Your task to perform on an android device: Do I have any events tomorrow? Image 0: 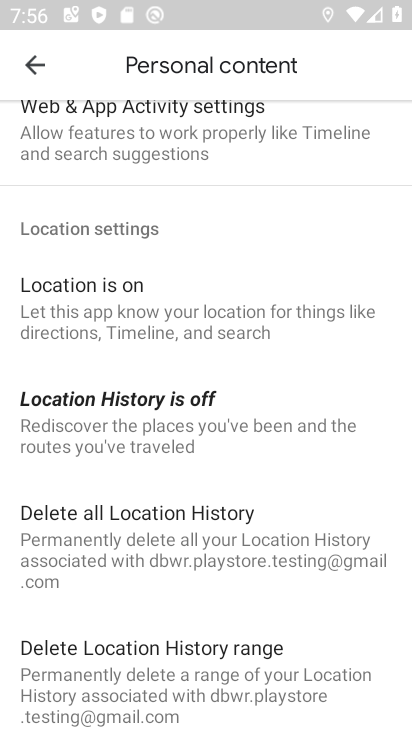
Step 0: press back button
Your task to perform on an android device: Do I have any events tomorrow? Image 1: 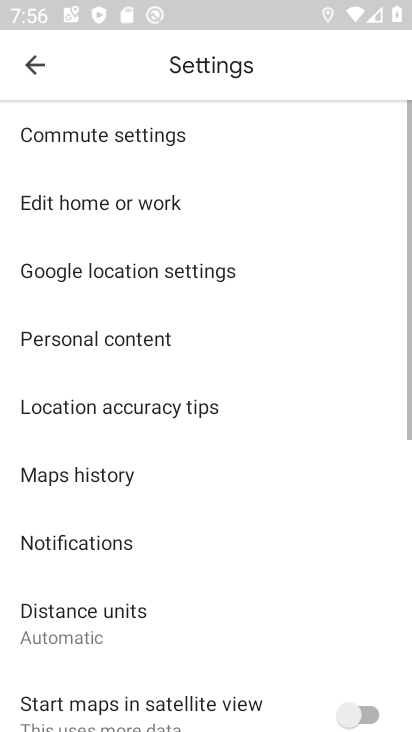
Step 1: press back button
Your task to perform on an android device: Do I have any events tomorrow? Image 2: 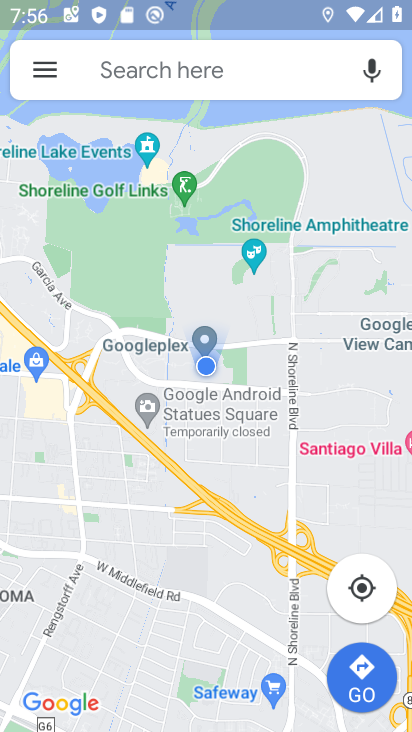
Step 2: press back button
Your task to perform on an android device: Do I have any events tomorrow? Image 3: 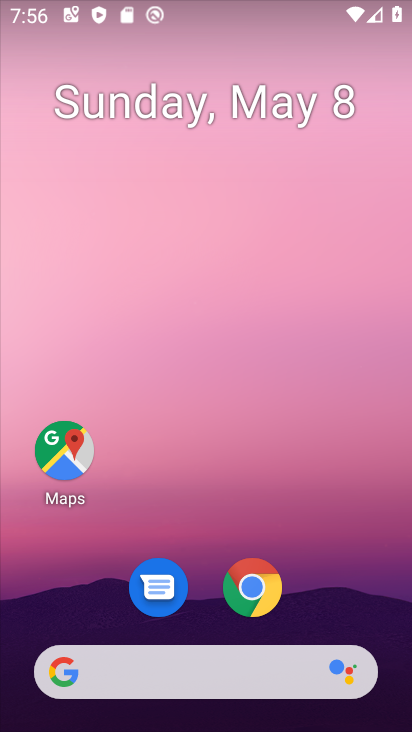
Step 3: drag from (206, 514) to (219, 44)
Your task to perform on an android device: Do I have any events tomorrow? Image 4: 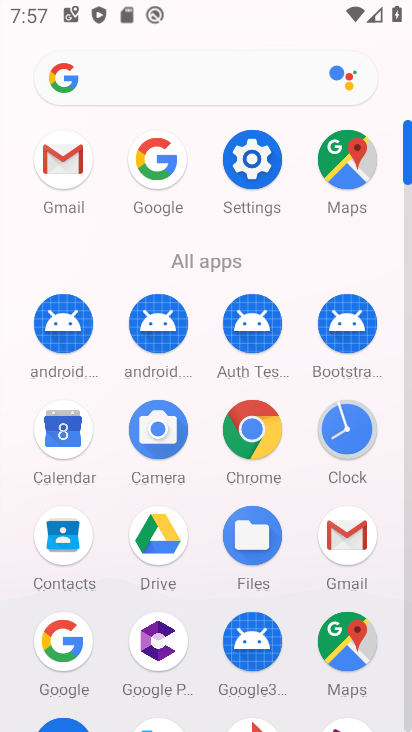
Step 4: drag from (111, 543) to (127, 449)
Your task to perform on an android device: Do I have any events tomorrow? Image 5: 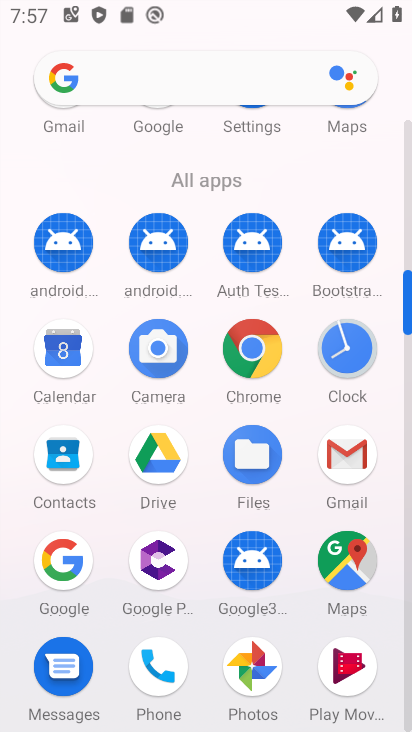
Step 5: click (64, 351)
Your task to perform on an android device: Do I have any events tomorrow? Image 6: 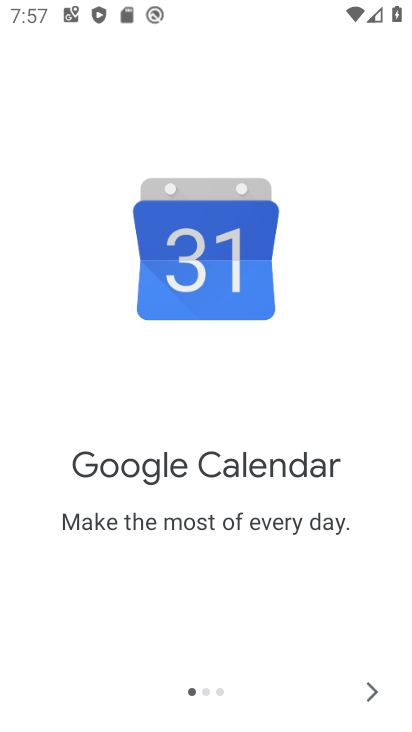
Step 6: click (373, 691)
Your task to perform on an android device: Do I have any events tomorrow? Image 7: 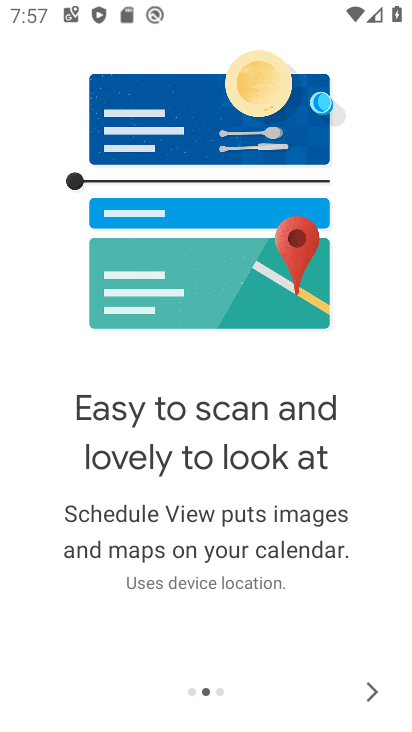
Step 7: click (373, 691)
Your task to perform on an android device: Do I have any events tomorrow? Image 8: 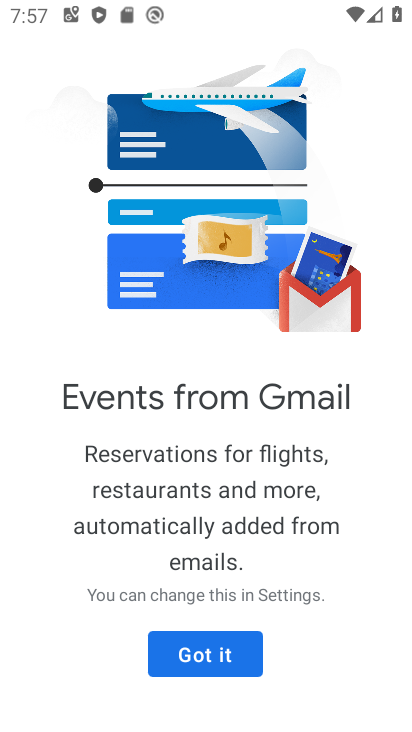
Step 8: click (212, 652)
Your task to perform on an android device: Do I have any events tomorrow? Image 9: 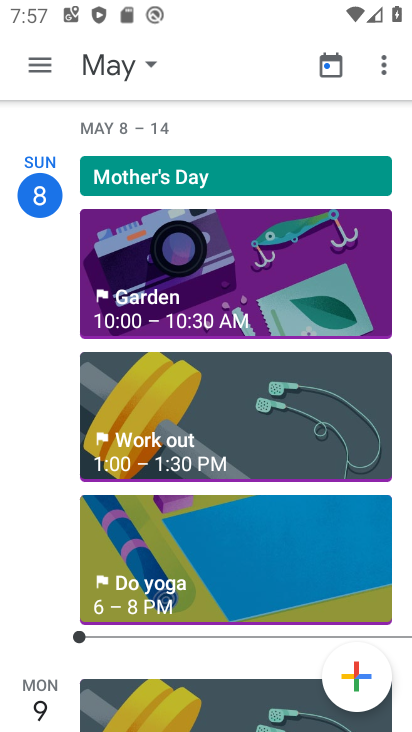
Step 9: click (153, 62)
Your task to perform on an android device: Do I have any events tomorrow? Image 10: 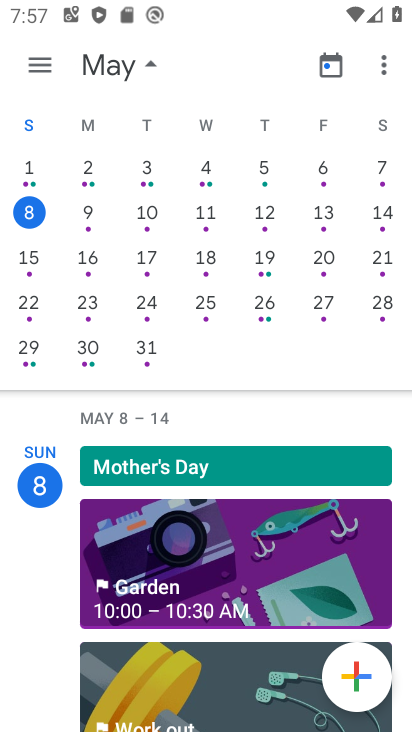
Step 10: click (93, 211)
Your task to perform on an android device: Do I have any events tomorrow? Image 11: 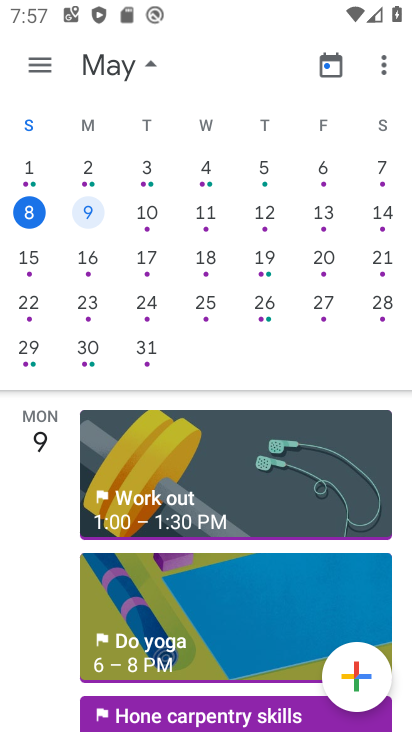
Step 11: drag from (168, 474) to (188, 344)
Your task to perform on an android device: Do I have any events tomorrow? Image 12: 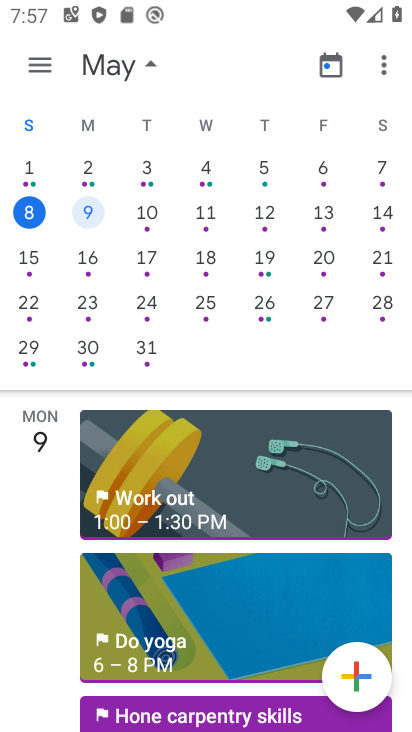
Step 12: click (190, 712)
Your task to perform on an android device: Do I have any events tomorrow? Image 13: 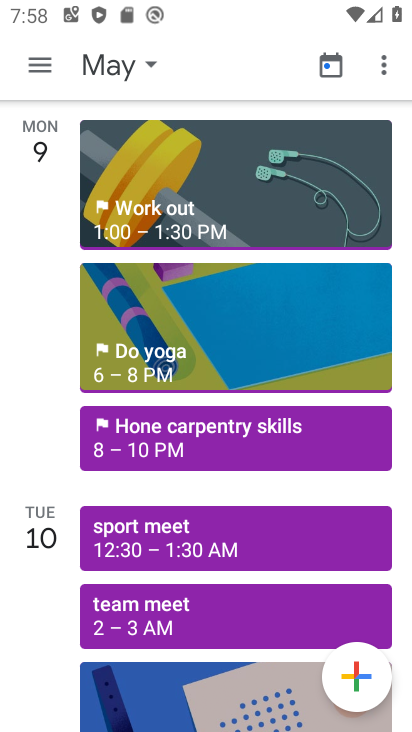
Step 13: click (212, 447)
Your task to perform on an android device: Do I have any events tomorrow? Image 14: 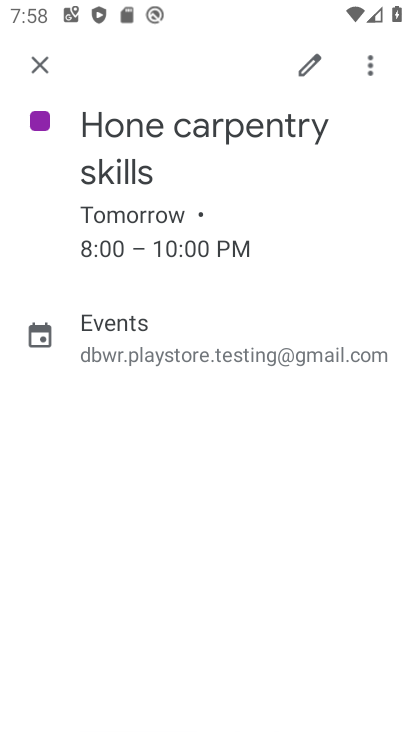
Step 14: task complete